Your task to perform on an android device: Open Chrome and go to the settings page Image 0: 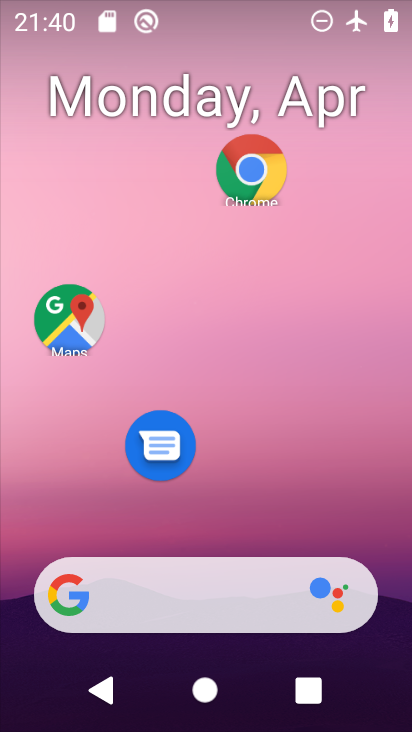
Step 0: click (254, 177)
Your task to perform on an android device: Open Chrome and go to the settings page Image 1: 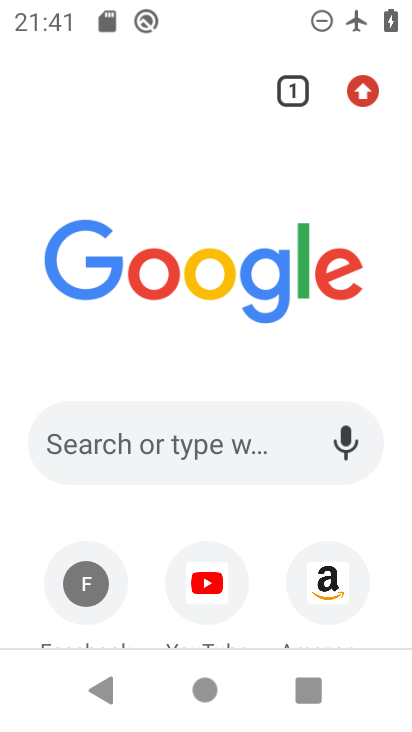
Step 1: task complete